Your task to perform on an android device: Is it going to rain tomorrow? Image 0: 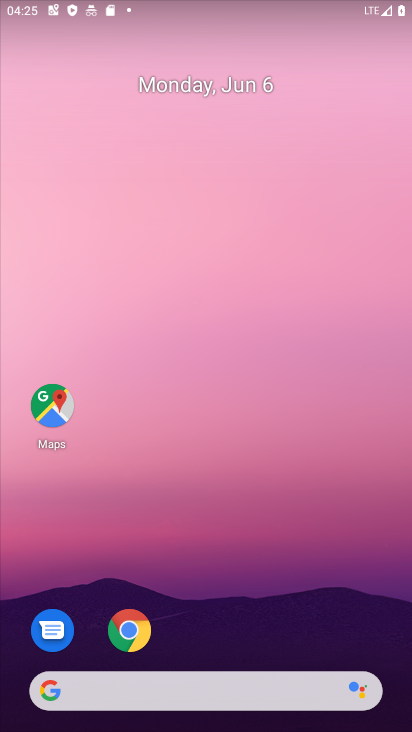
Step 0: press home button
Your task to perform on an android device: Is it going to rain tomorrow? Image 1: 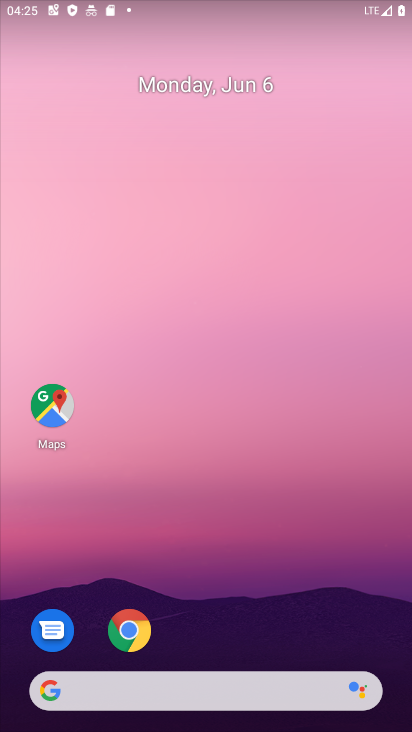
Step 1: drag from (219, 109) to (202, 31)
Your task to perform on an android device: Is it going to rain tomorrow? Image 2: 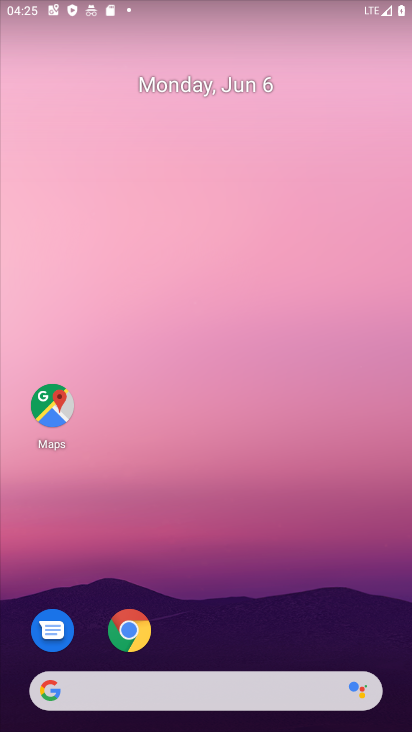
Step 2: click (124, 632)
Your task to perform on an android device: Is it going to rain tomorrow? Image 3: 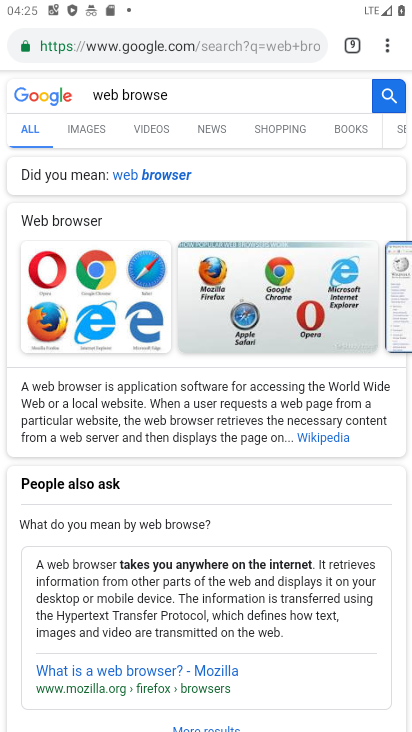
Step 3: click (187, 48)
Your task to perform on an android device: Is it going to rain tomorrow? Image 4: 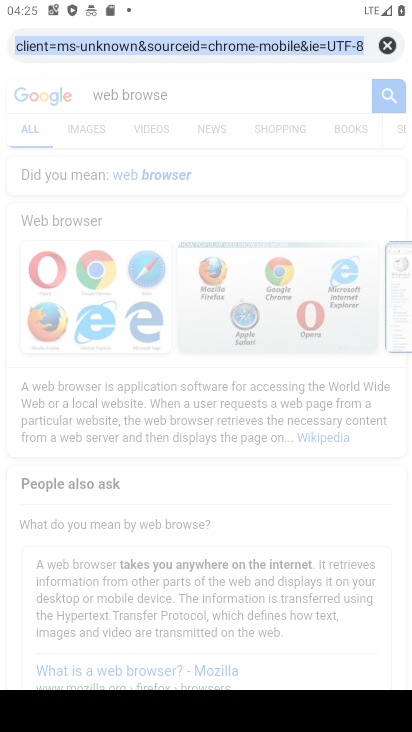
Step 4: type "Is it going to rain tomorrow?"
Your task to perform on an android device: Is it going to rain tomorrow? Image 5: 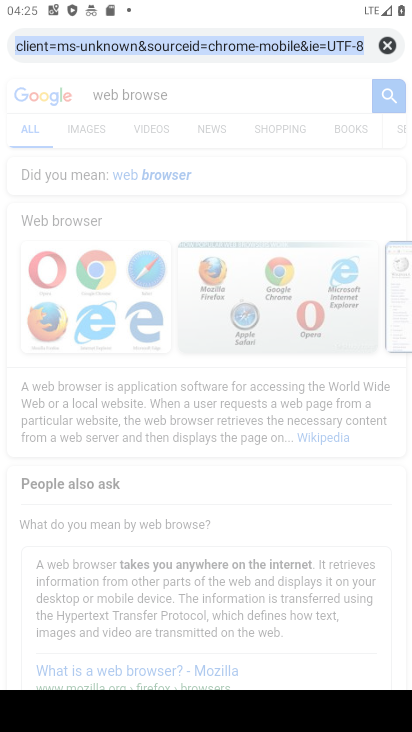
Step 5: click (292, 98)
Your task to perform on an android device: Is it going to rain tomorrow? Image 6: 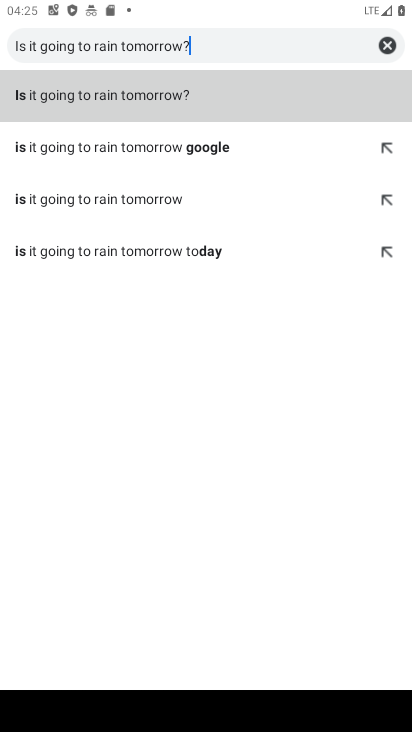
Step 6: type ""
Your task to perform on an android device: Is it going to rain tomorrow? Image 7: 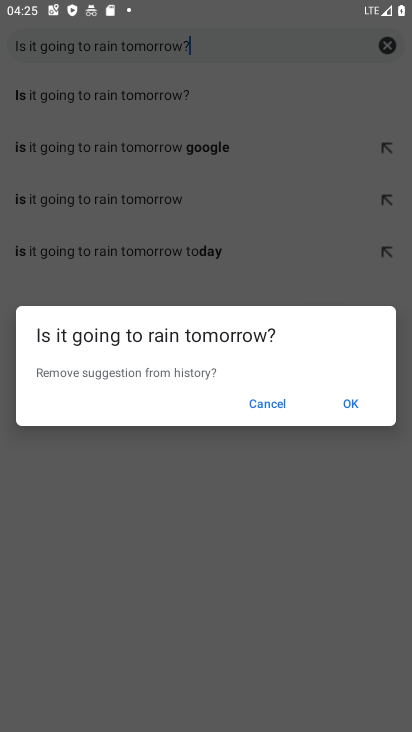
Step 7: click (254, 389)
Your task to perform on an android device: Is it going to rain tomorrow? Image 8: 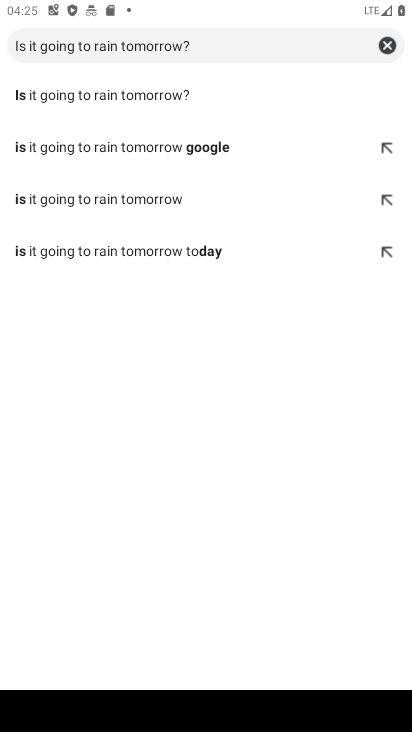
Step 8: click (231, 99)
Your task to perform on an android device: Is it going to rain tomorrow? Image 9: 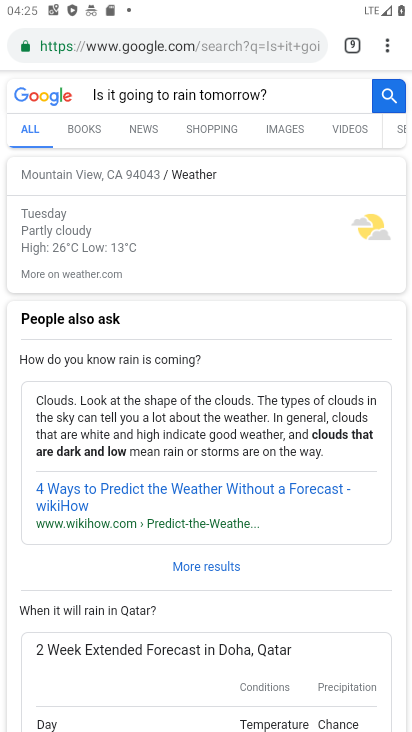
Step 9: task complete